Your task to perform on an android device: Open Google Chrome and open the bookmarks view Image 0: 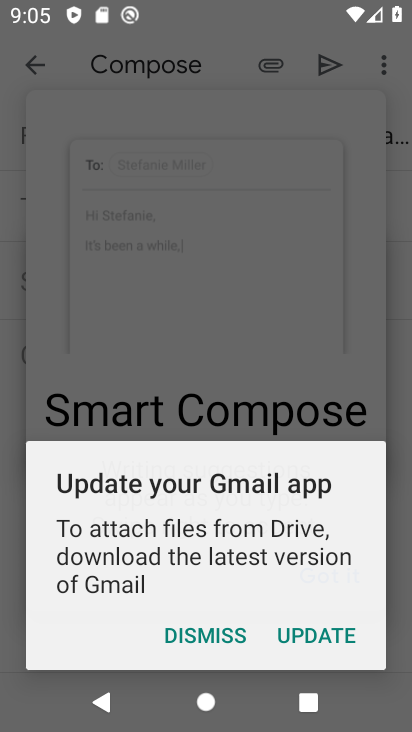
Step 0: press home button
Your task to perform on an android device: Open Google Chrome and open the bookmarks view Image 1: 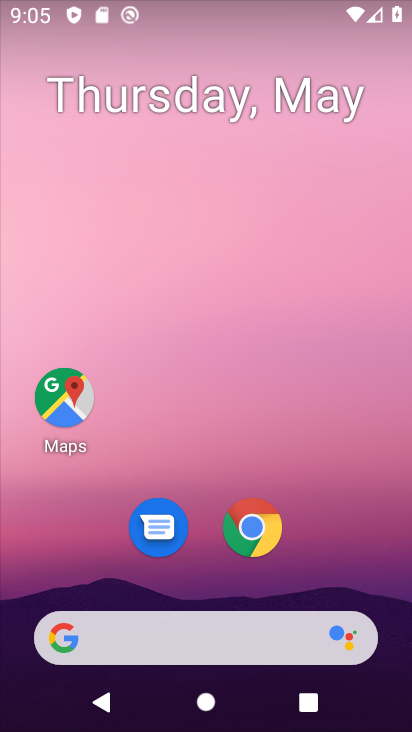
Step 1: click (246, 523)
Your task to perform on an android device: Open Google Chrome and open the bookmarks view Image 2: 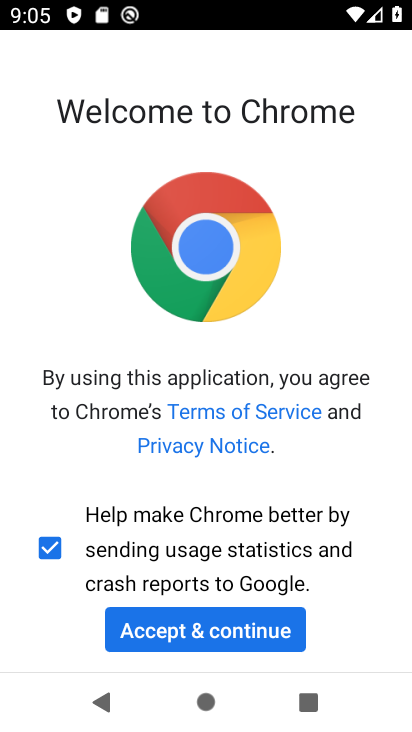
Step 2: click (196, 642)
Your task to perform on an android device: Open Google Chrome and open the bookmarks view Image 3: 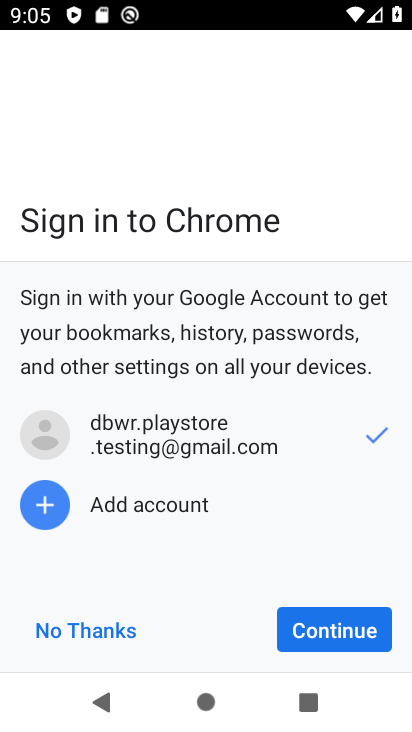
Step 3: click (303, 637)
Your task to perform on an android device: Open Google Chrome and open the bookmarks view Image 4: 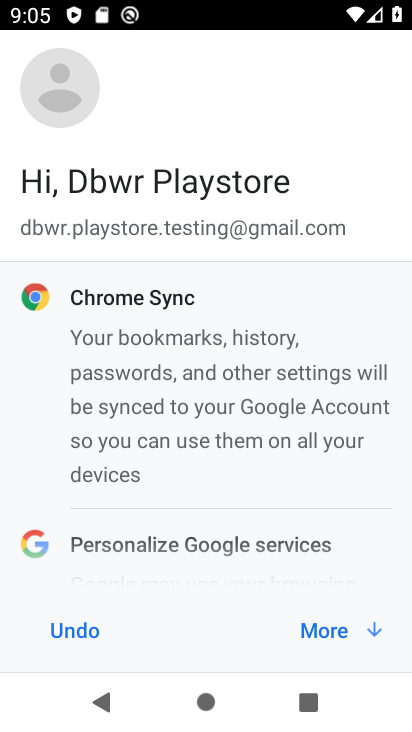
Step 4: click (303, 637)
Your task to perform on an android device: Open Google Chrome and open the bookmarks view Image 5: 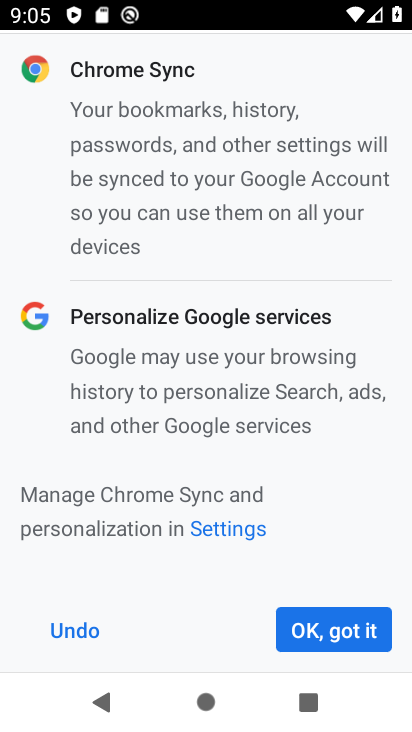
Step 5: click (303, 637)
Your task to perform on an android device: Open Google Chrome and open the bookmarks view Image 6: 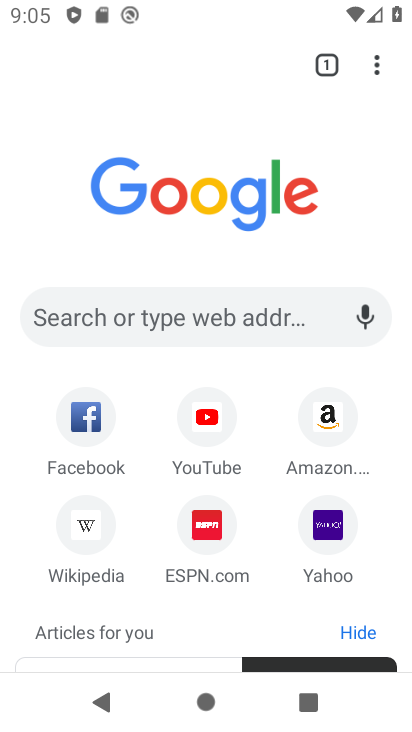
Step 6: click (379, 55)
Your task to perform on an android device: Open Google Chrome and open the bookmarks view Image 7: 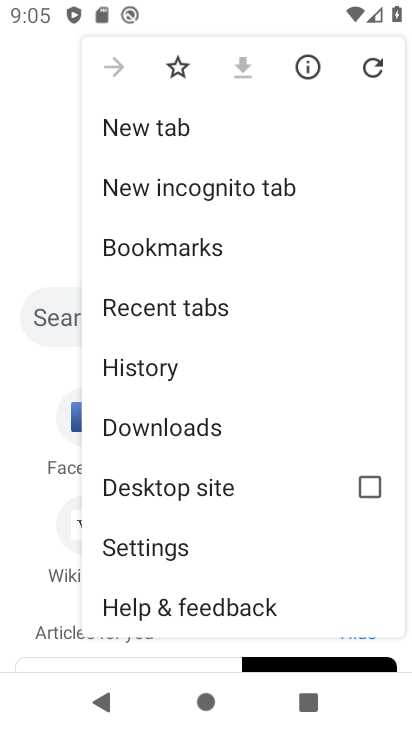
Step 7: click (211, 251)
Your task to perform on an android device: Open Google Chrome and open the bookmarks view Image 8: 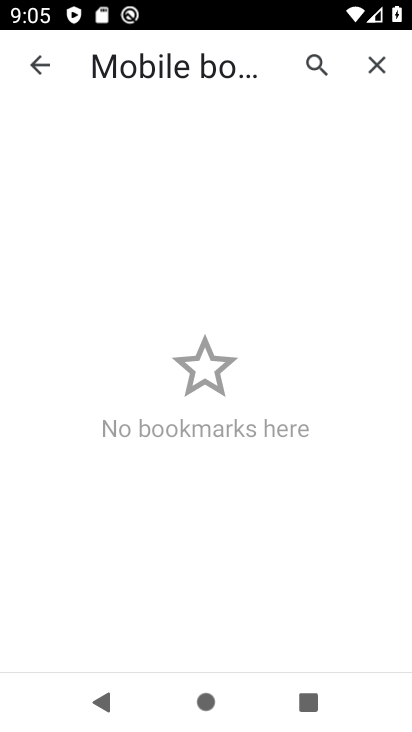
Step 8: task complete